Your task to perform on an android device: Open privacy settings Image 0: 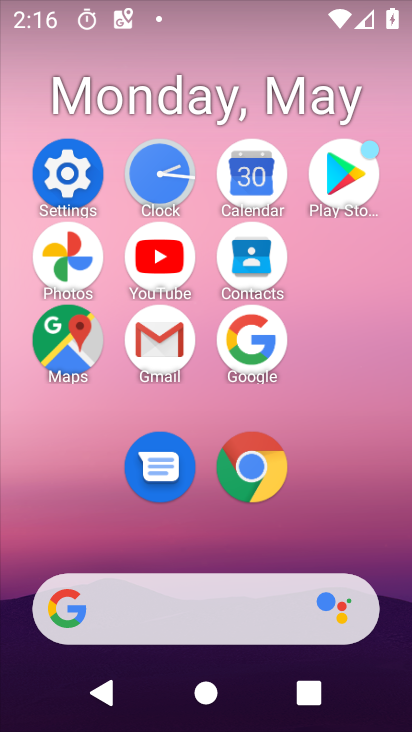
Step 0: click (51, 166)
Your task to perform on an android device: Open privacy settings Image 1: 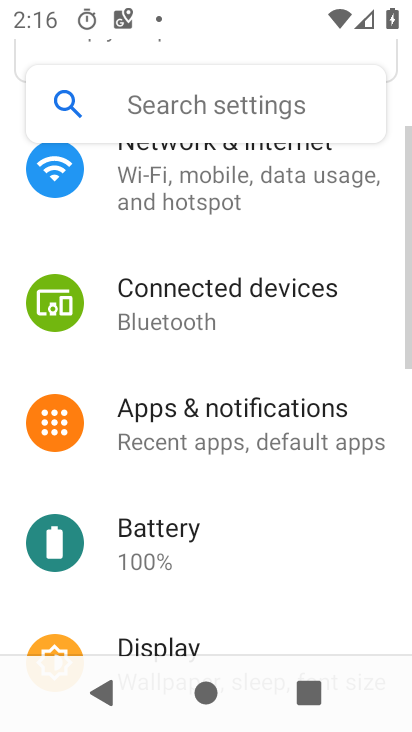
Step 1: drag from (310, 533) to (339, 146)
Your task to perform on an android device: Open privacy settings Image 2: 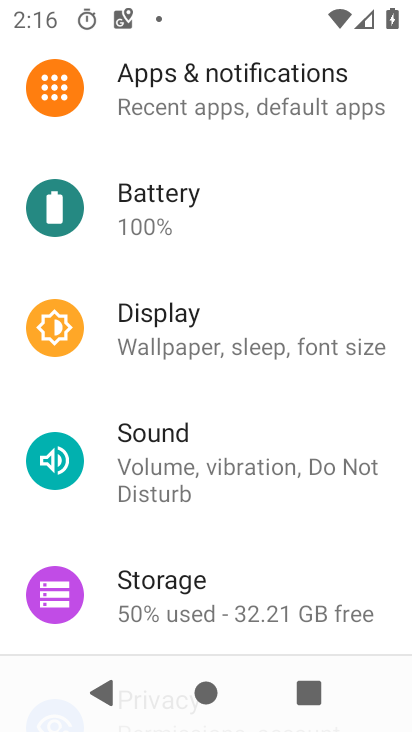
Step 2: drag from (249, 539) to (250, 145)
Your task to perform on an android device: Open privacy settings Image 3: 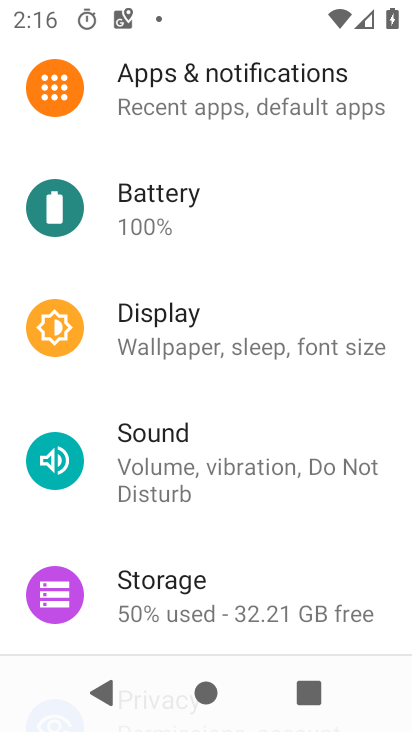
Step 3: drag from (259, 487) to (302, 169)
Your task to perform on an android device: Open privacy settings Image 4: 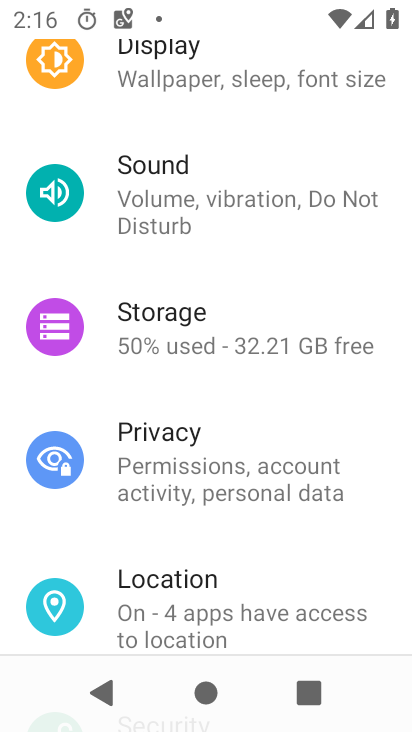
Step 4: click (233, 485)
Your task to perform on an android device: Open privacy settings Image 5: 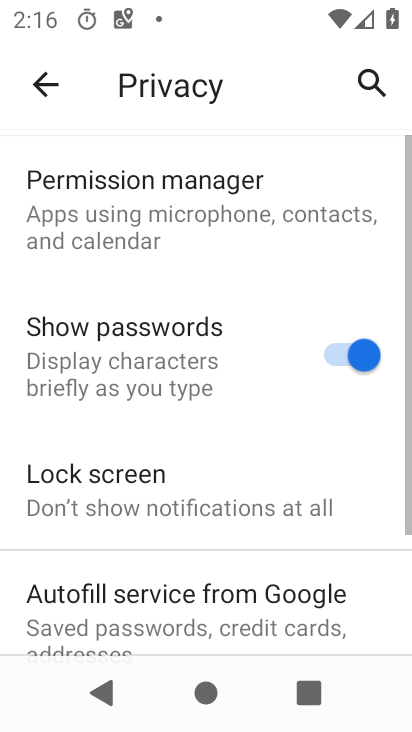
Step 5: task complete